Your task to perform on an android device: turn off improve location accuracy Image 0: 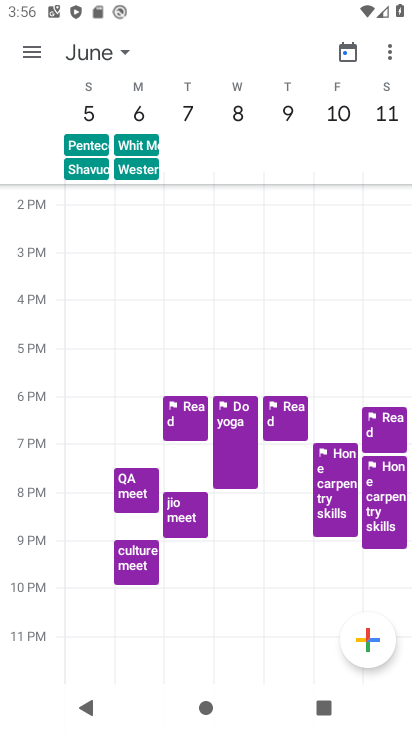
Step 0: press home button
Your task to perform on an android device: turn off improve location accuracy Image 1: 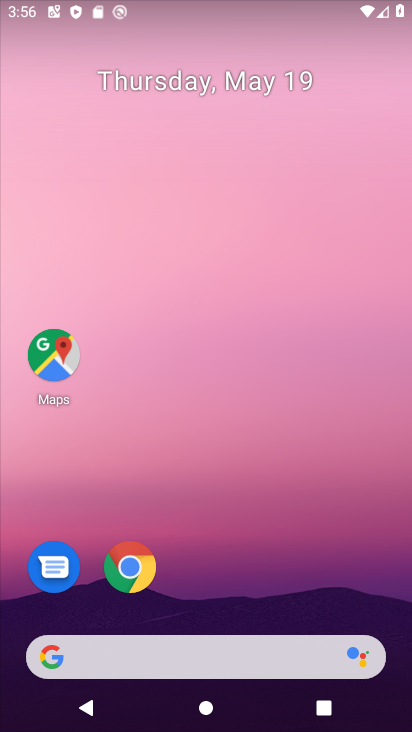
Step 1: drag from (204, 593) to (202, 9)
Your task to perform on an android device: turn off improve location accuracy Image 2: 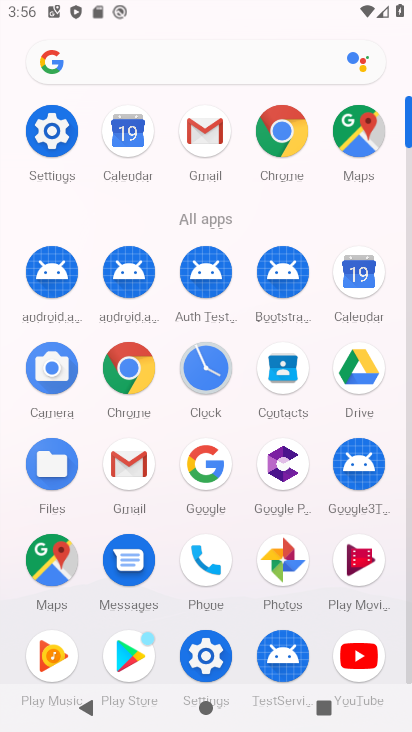
Step 2: click (50, 141)
Your task to perform on an android device: turn off improve location accuracy Image 3: 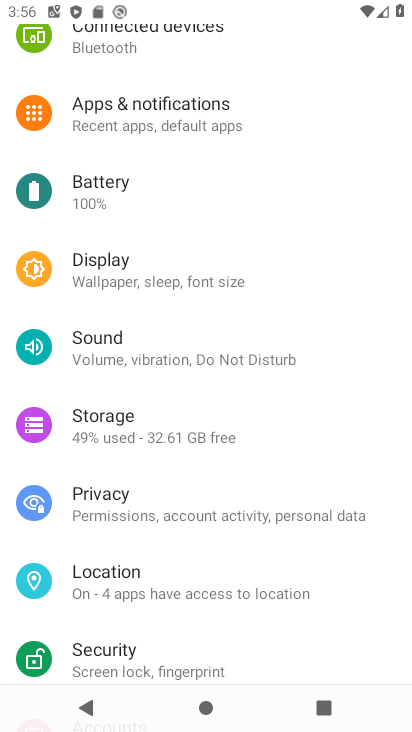
Step 3: click (110, 594)
Your task to perform on an android device: turn off improve location accuracy Image 4: 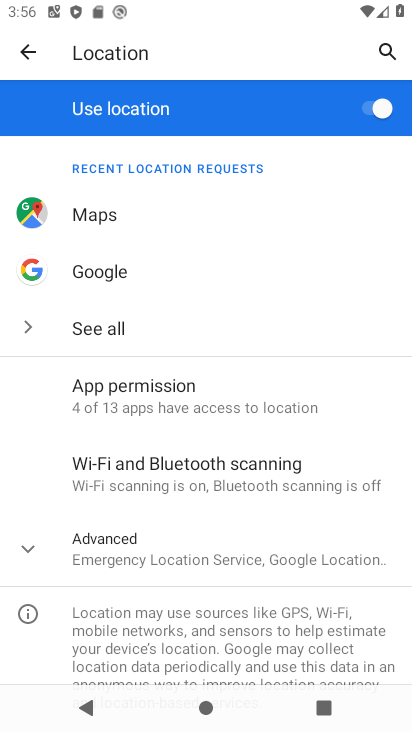
Step 4: click (123, 563)
Your task to perform on an android device: turn off improve location accuracy Image 5: 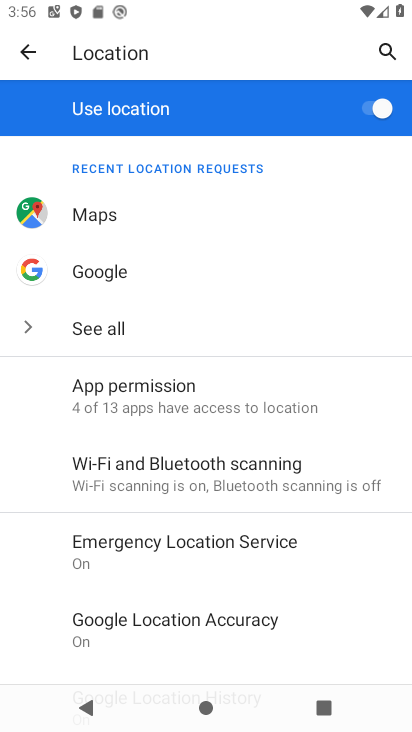
Step 5: drag from (148, 614) to (172, 304)
Your task to perform on an android device: turn off improve location accuracy Image 6: 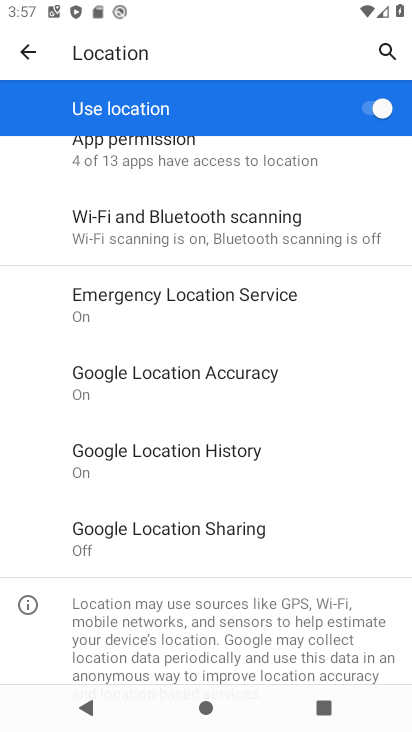
Step 6: click (151, 396)
Your task to perform on an android device: turn off improve location accuracy Image 7: 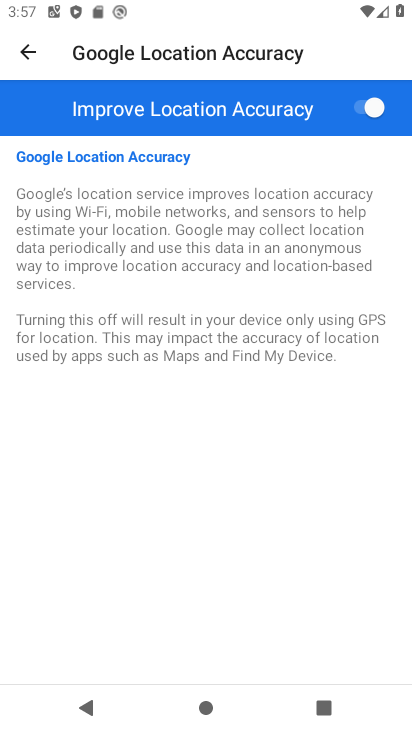
Step 7: click (360, 105)
Your task to perform on an android device: turn off improve location accuracy Image 8: 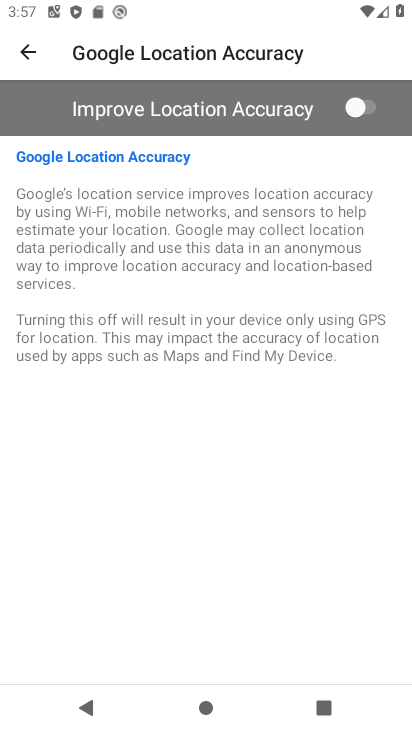
Step 8: task complete